Your task to perform on an android device: turn notification dots off Image 0: 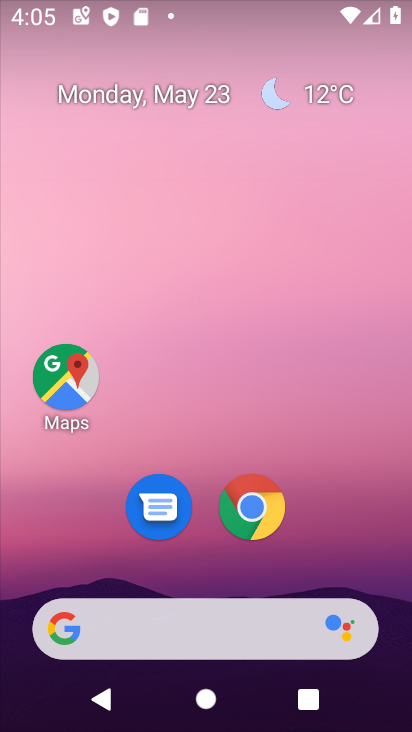
Step 0: drag from (186, 164) to (174, 127)
Your task to perform on an android device: turn notification dots off Image 1: 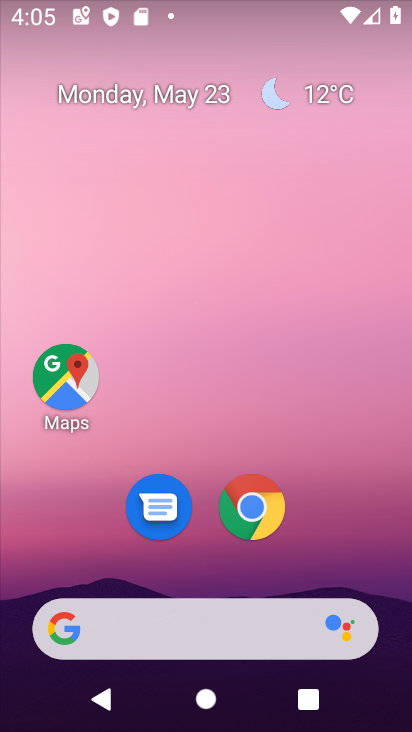
Step 1: drag from (216, 484) to (288, 9)
Your task to perform on an android device: turn notification dots off Image 2: 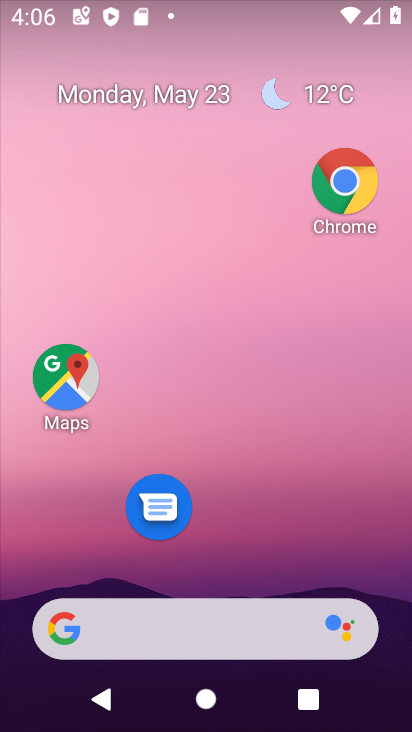
Step 2: drag from (237, 532) to (261, 49)
Your task to perform on an android device: turn notification dots off Image 3: 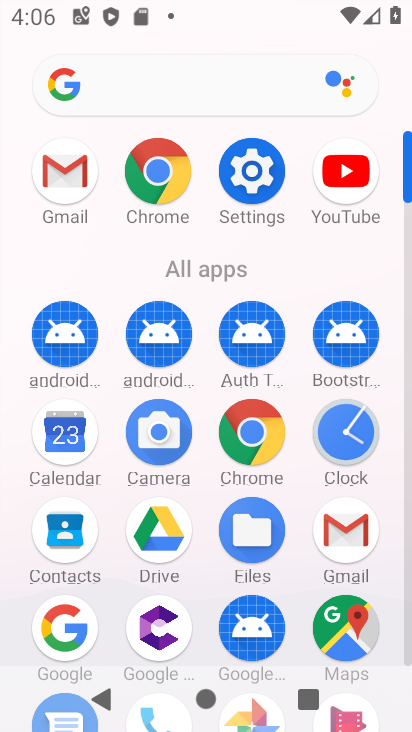
Step 3: click (245, 166)
Your task to perform on an android device: turn notification dots off Image 4: 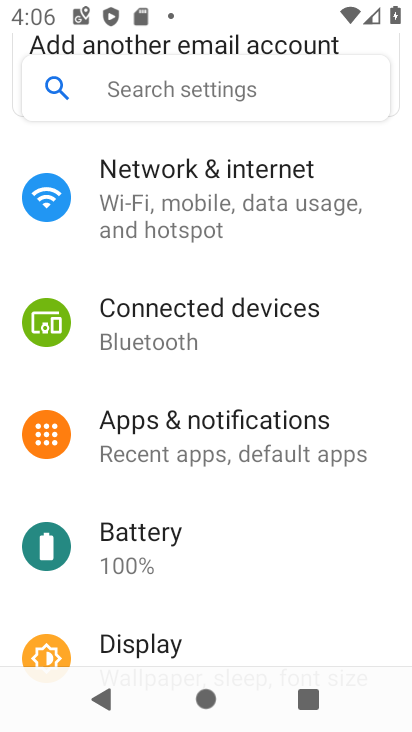
Step 4: click (186, 405)
Your task to perform on an android device: turn notification dots off Image 5: 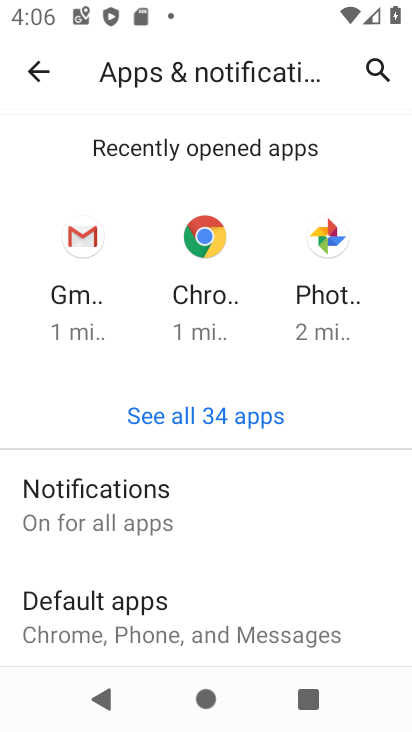
Step 5: click (185, 491)
Your task to perform on an android device: turn notification dots off Image 6: 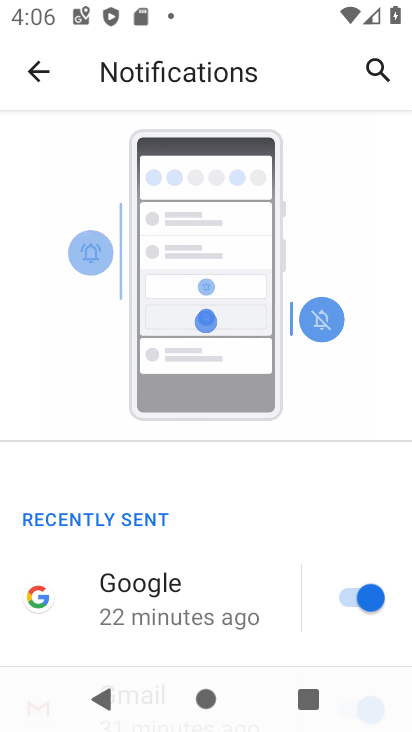
Step 6: drag from (171, 634) to (192, 406)
Your task to perform on an android device: turn notification dots off Image 7: 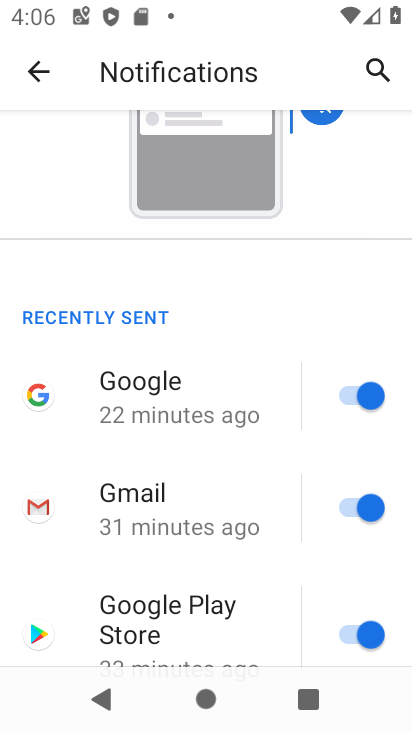
Step 7: click (197, 723)
Your task to perform on an android device: turn notification dots off Image 8: 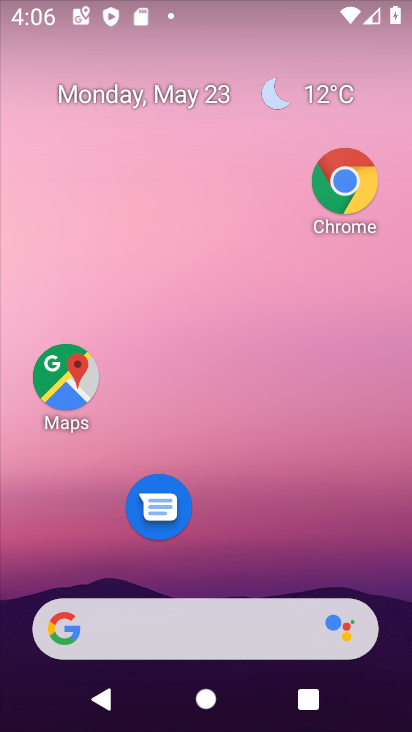
Step 8: drag from (182, 578) to (197, 84)
Your task to perform on an android device: turn notification dots off Image 9: 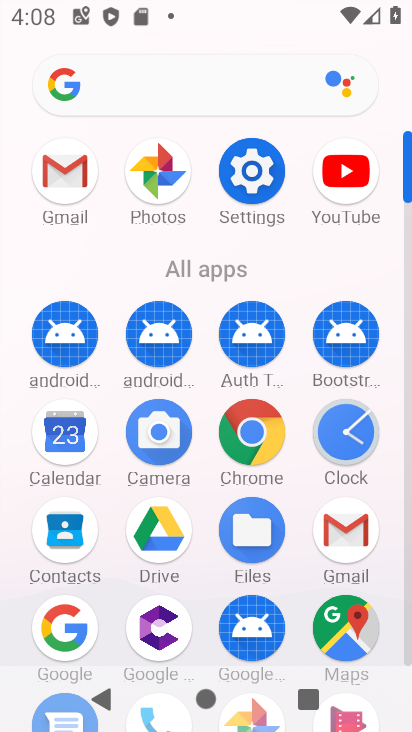
Step 9: click (260, 188)
Your task to perform on an android device: turn notification dots off Image 10: 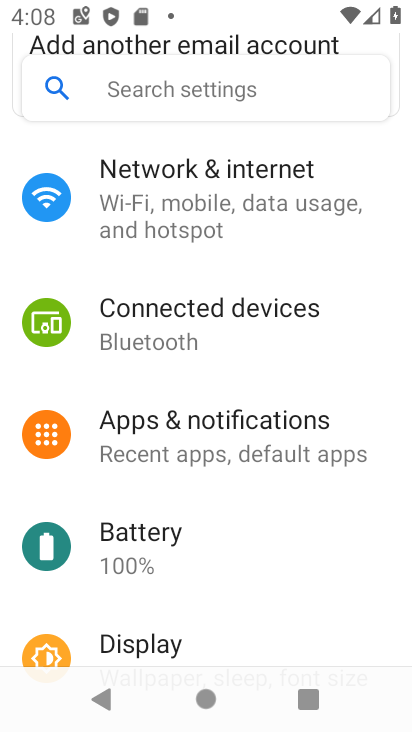
Step 10: click (276, 416)
Your task to perform on an android device: turn notification dots off Image 11: 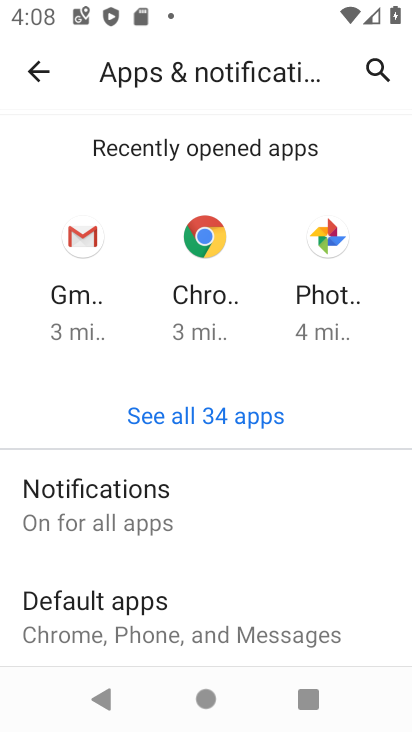
Step 11: click (163, 538)
Your task to perform on an android device: turn notification dots off Image 12: 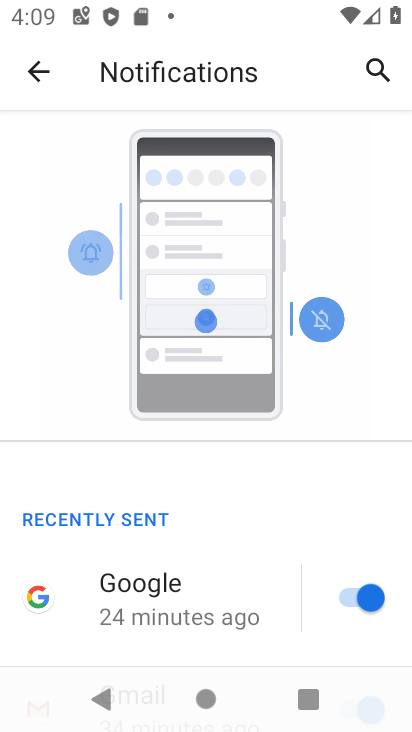
Step 12: drag from (217, 513) to (256, 91)
Your task to perform on an android device: turn notification dots off Image 13: 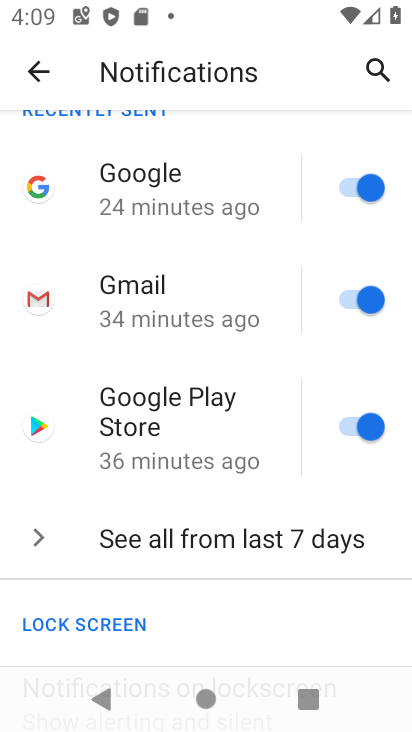
Step 13: drag from (118, 657) to (198, 196)
Your task to perform on an android device: turn notification dots off Image 14: 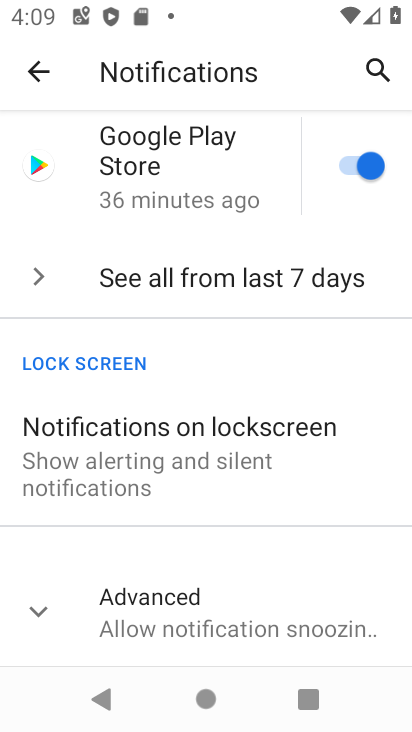
Step 14: click (188, 609)
Your task to perform on an android device: turn notification dots off Image 15: 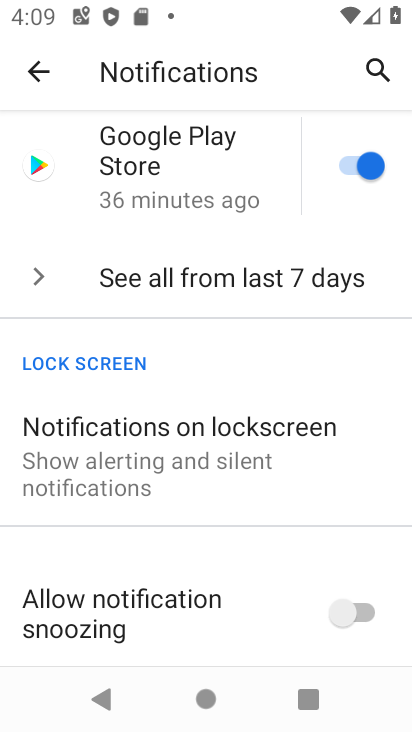
Step 15: drag from (224, 512) to (246, 131)
Your task to perform on an android device: turn notification dots off Image 16: 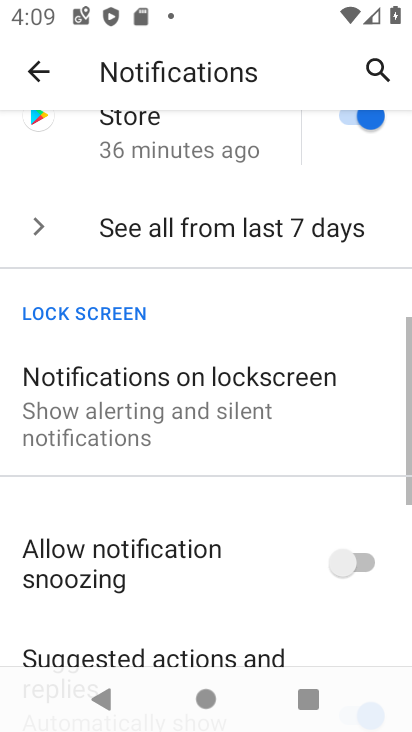
Step 16: drag from (178, 618) to (199, 299)
Your task to perform on an android device: turn notification dots off Image 17: 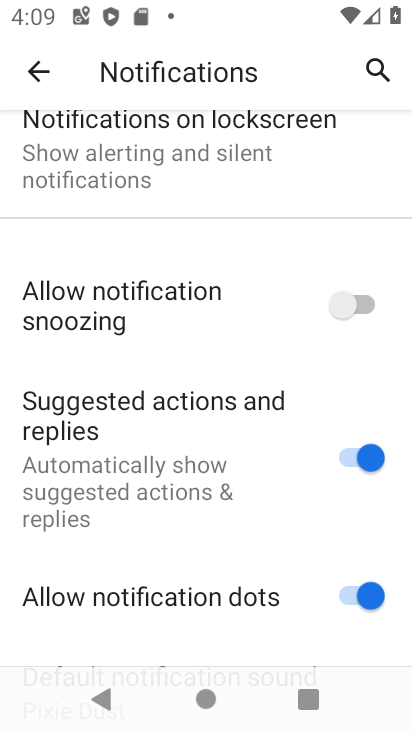
Step 17: click (174, 602)
Your task to perform on an android device: turn notification dots off Image 18: 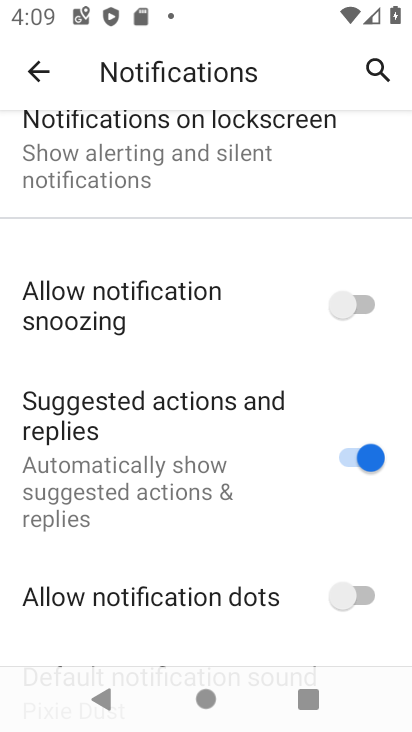
Step 18: task complete